Your task to perform on an android device: Open calendar and show me the first week of next month Image 0: 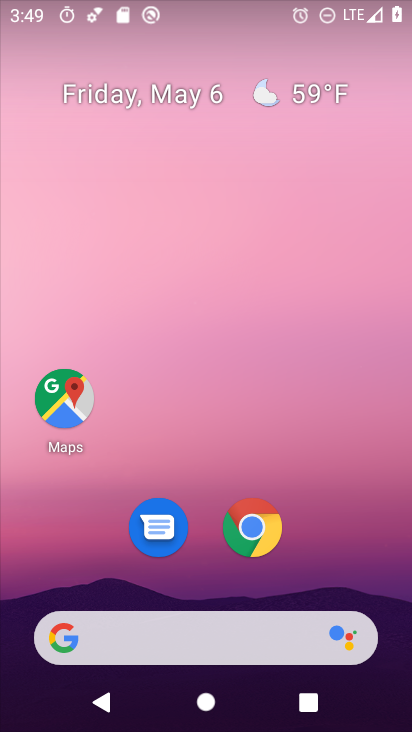
Step 0: drag from (366, 562) to (287, 126)
Your task to perform on an android device: Open calendar and show me the first week of next month Image 1: 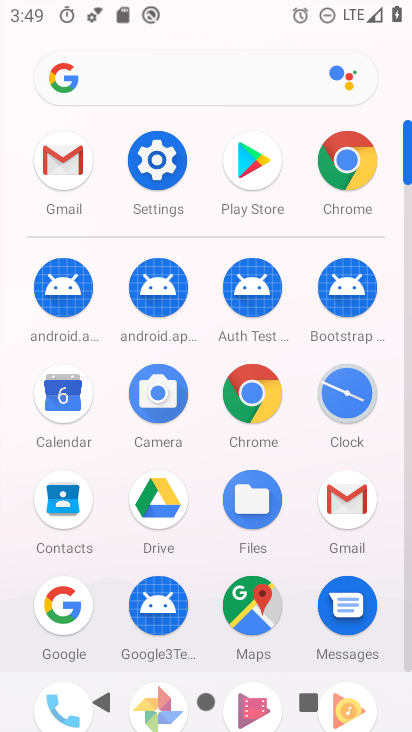
Step 1: click (63, 405)
Your task to perform on an android device: Open calendar and show me the first week of next month Image 2: 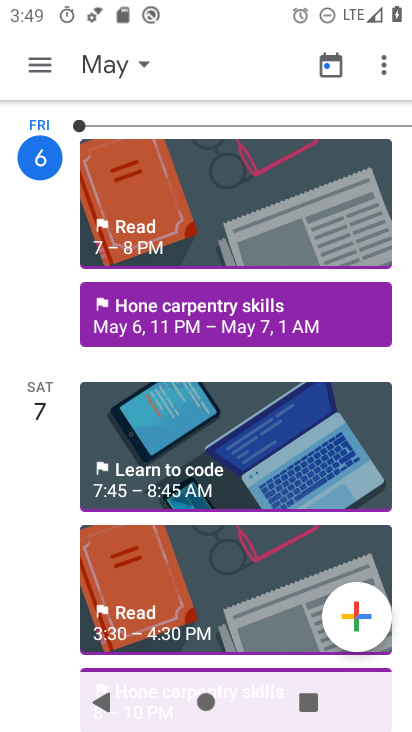
Step 2: click (106, 67)
Your task to perform on an android device: Open calendar and show me the first week of next month Image 3: 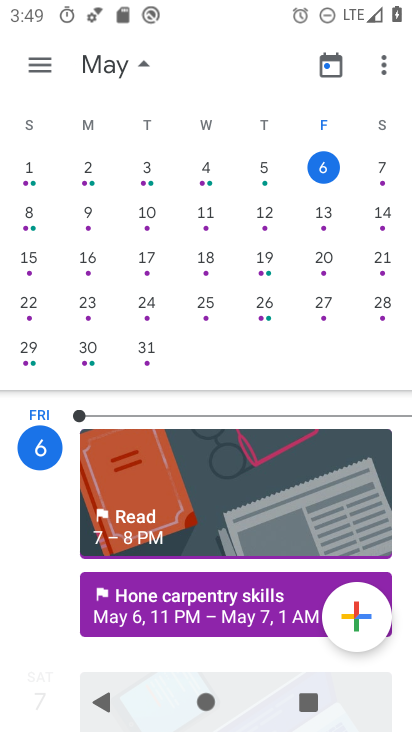
Step 3: drag from (340, 259) to (13, 255)
Your task to perform on an android device: Open calendar and show me the first week of next month Image 4: 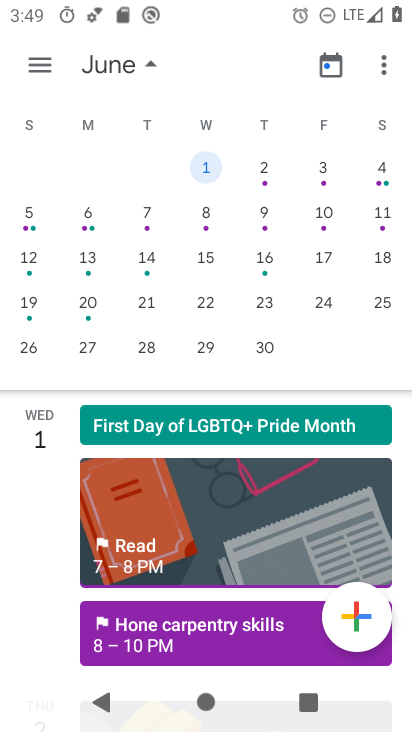
Step 4: click (268, 166)
Your task to perform on an android device: Open calendar and show me the first week of next month Image 5: 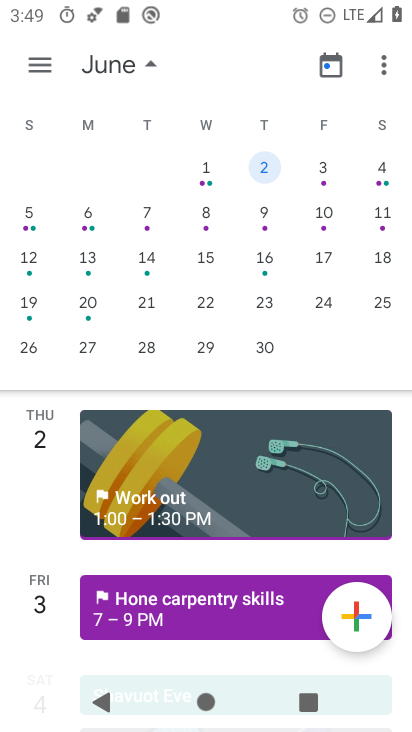
Step 5: task complete